Your task to perform on an android device: add a label to a message in the gmail app Image 0: 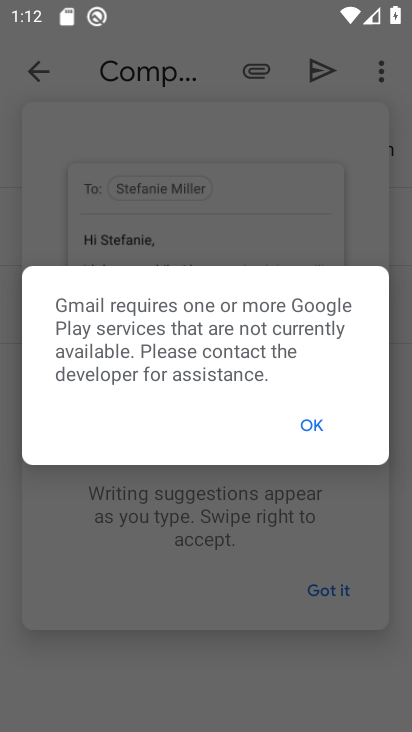
Step 0: press home button
Your task to perform on an android device: add a label to a message in the gmail app Image 1: 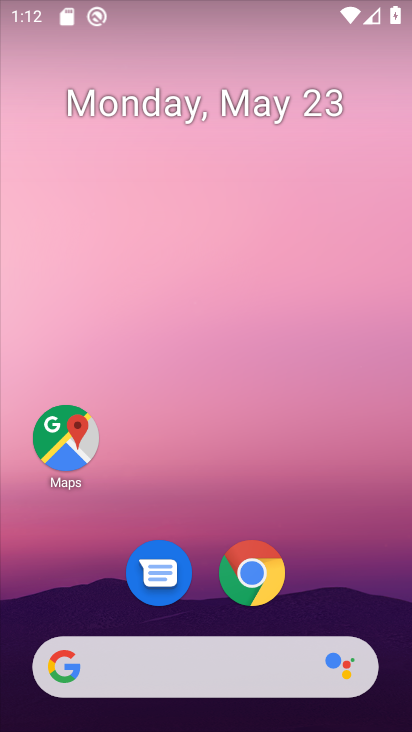
Step 1: drag from (339, 591) to (334, 100)
Your task to perform on an android device: add a label to a message in the gmail app Image 2: 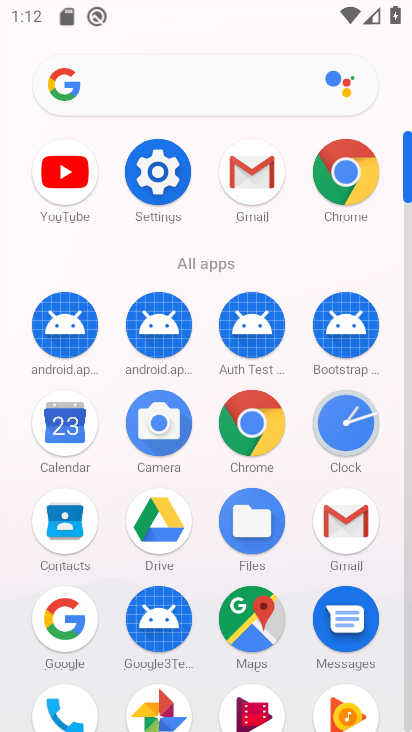
Step 2: click (256, 173)
Your task to perform on an android device: add a label to a message in the gmail app Image 3: 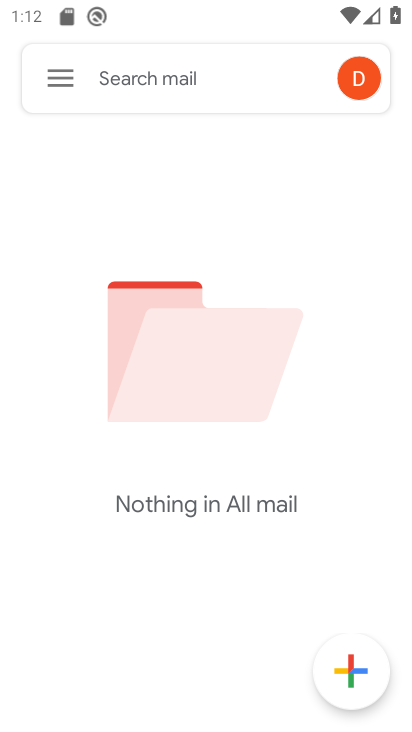
Step 3: task complete